Your task to perform on an android device: Look up the best rated hair dryer on Walmart. Image 0: 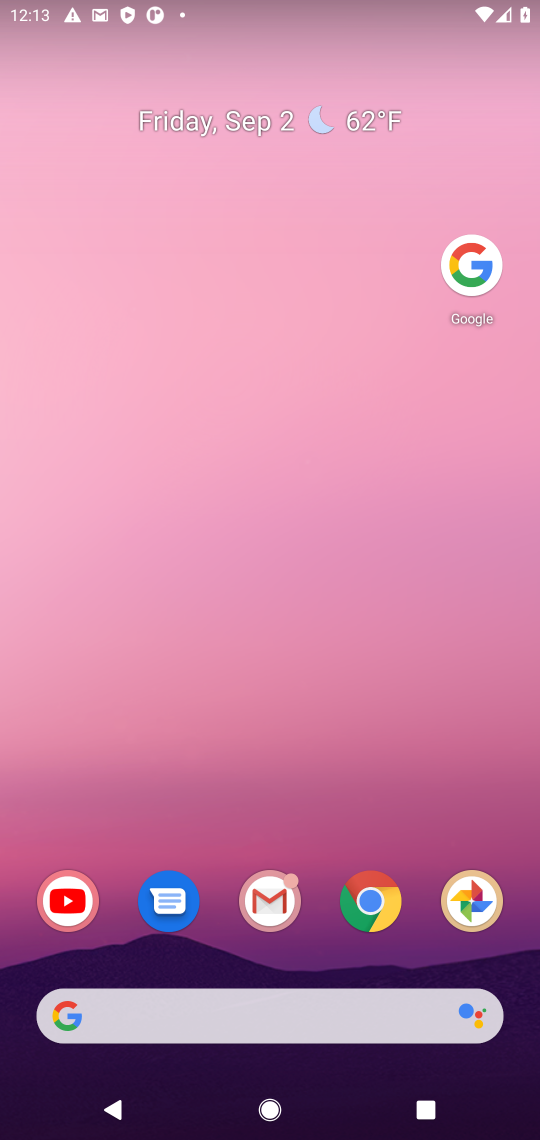
Step 0: drag from (219, 1019) to (250, 398)
Your task to perform on an android device: Look up the best rated hair dryer on Walmart. Image 1: 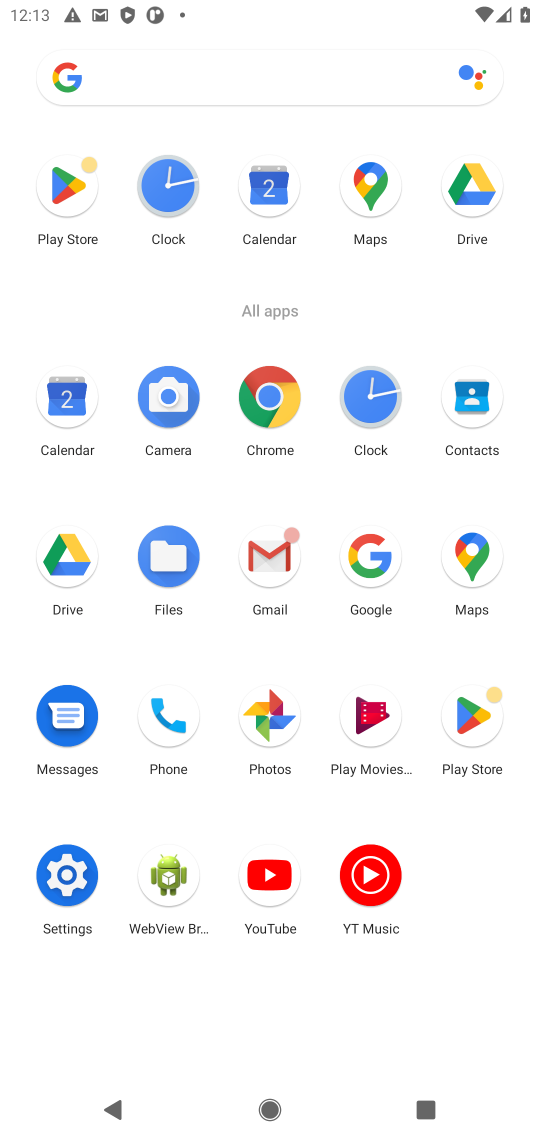
Step 1: click (366, 528)
Your task to perform on an android device: Look up the best rated hair dryer on Walmart. Image 2: 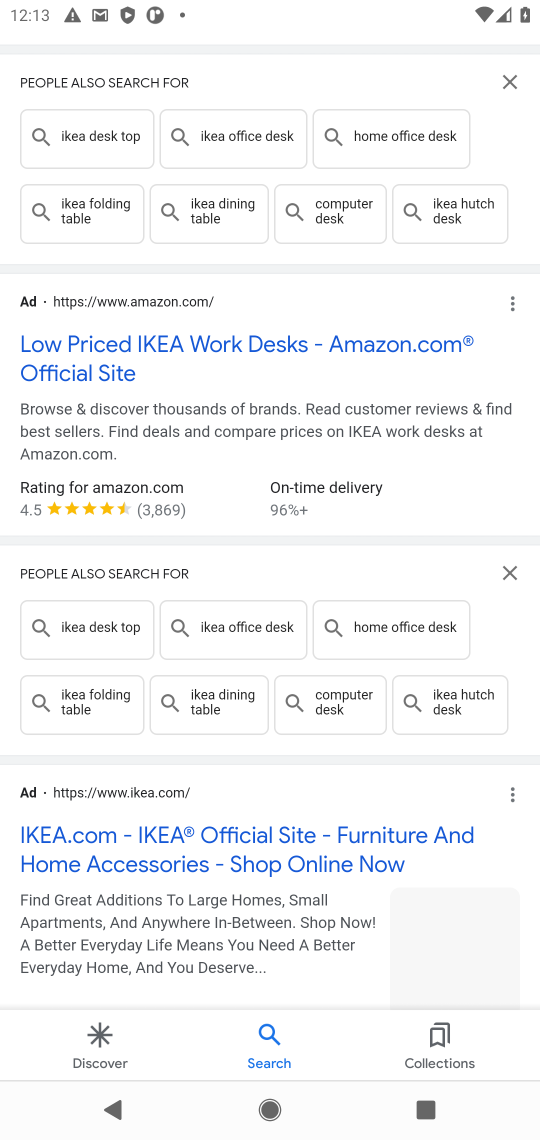
Step 2: drag from (277, 138) to (292, 947)
Your task to perform on an android device: Look up the best rated hair dryer on Walmart. Image 3: 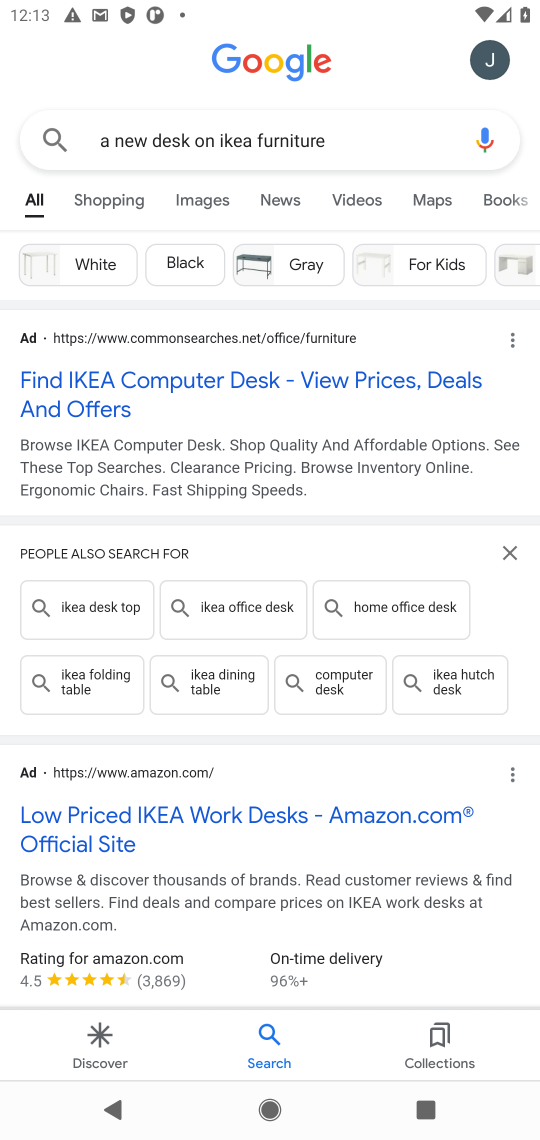
Step 3: click (340, 137)
Your task to perform on an android device: Look up the best rated hair dryer on Walmart. Image 4: 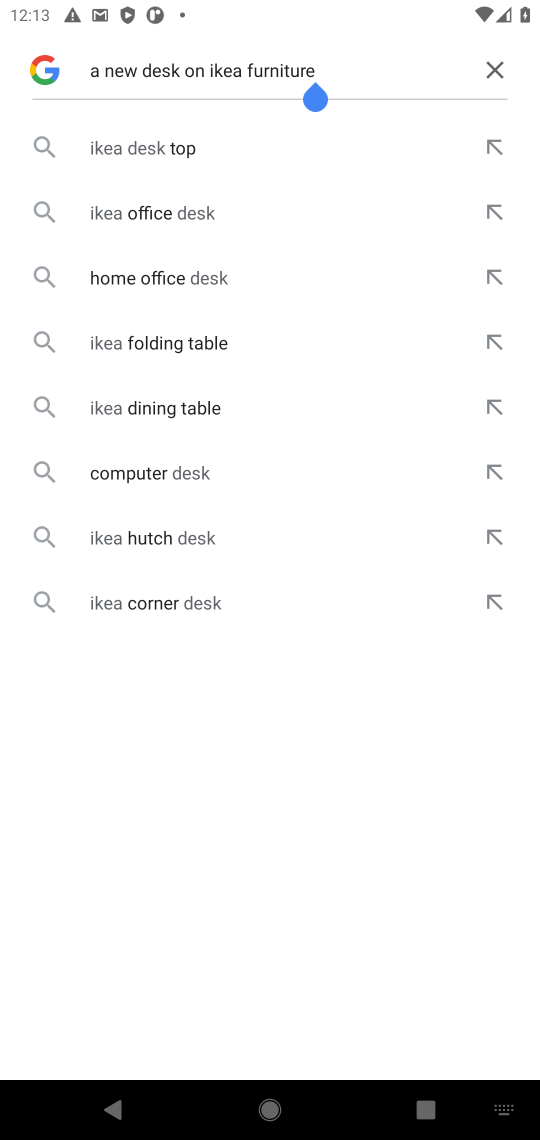
Step 4: click (488, 75)
Your task to perform on an android device: Look up the best rated hair dryer on Walmart. Image 5: 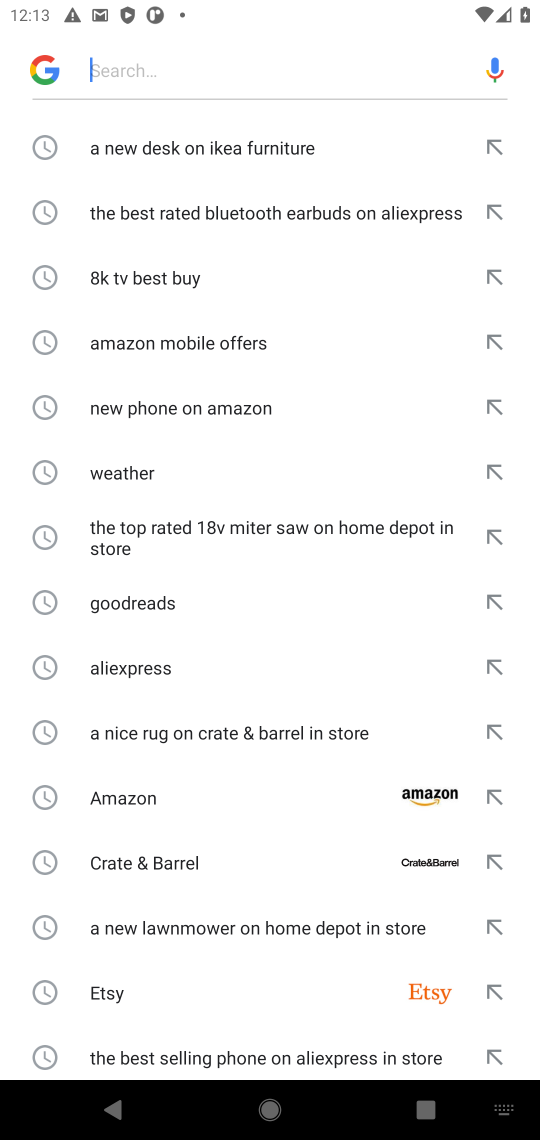
Step 5: click (274, 72)
Your task to perform on an android device: Look up the best rated hair dryer on Walmart. Image 6: 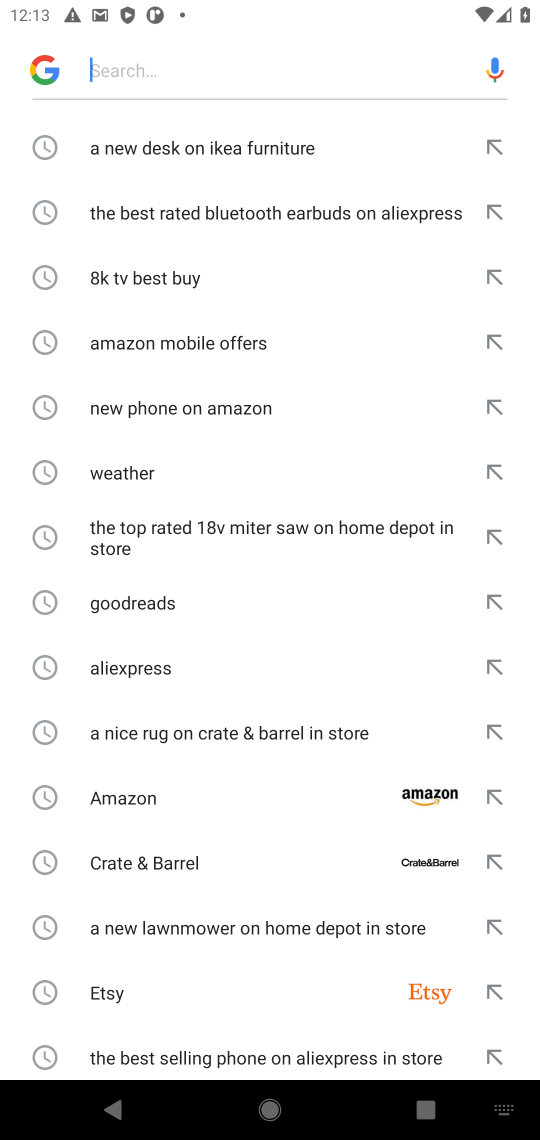
Step 6: type "the best rated hair dryer on Walmart "
Your task to perform on an android device: Look up the best rated hair dryer on Walmart. Image 7: 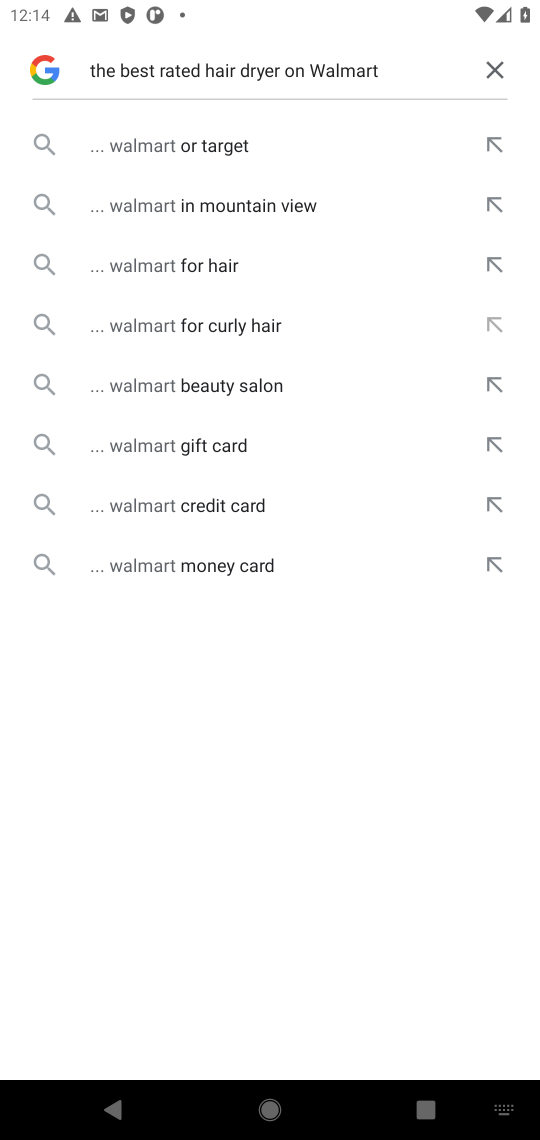
Step 7: click (197, 147)
Your task to perform on an android device: Look up the best rated hair dryer on Walmart. Image 8: 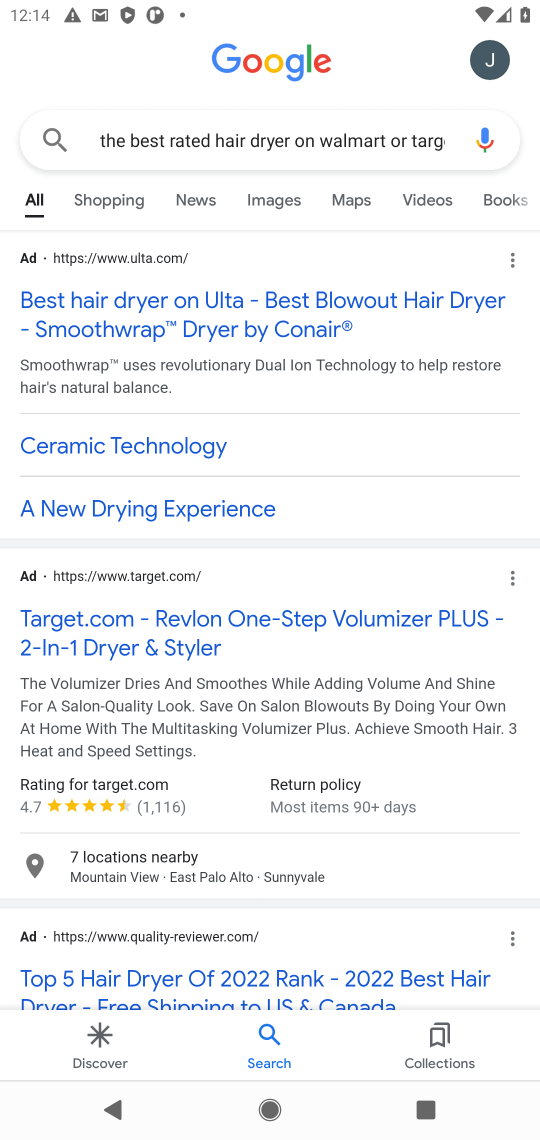
Step 8: click (145, 305)
Your task to perform on an android device: Look up the best rated hair dryer on Walmart. Image 9: 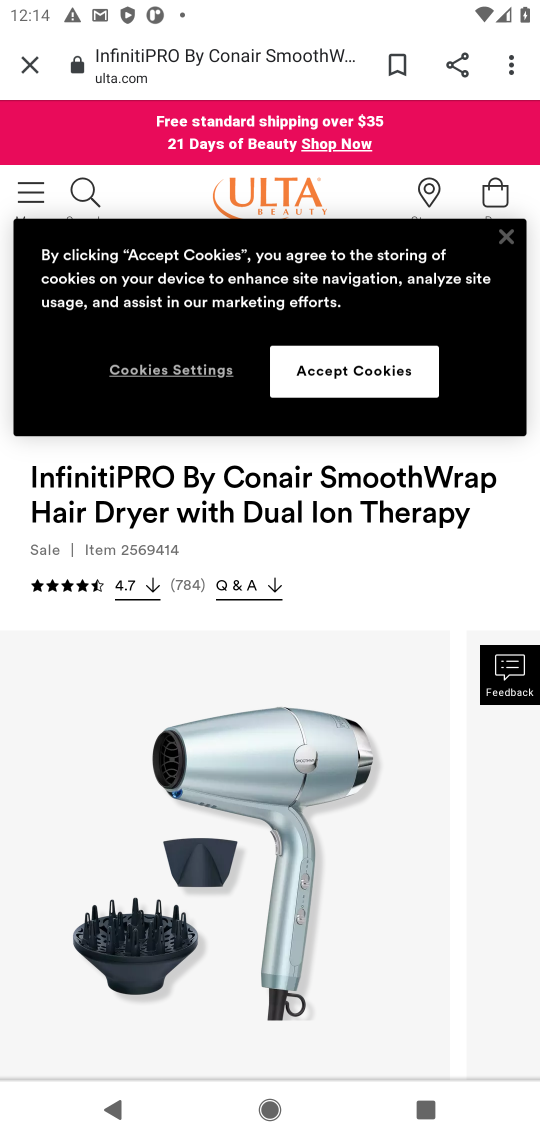
Step 9: drag from (344, 974) to (381, 206)
Your task to perform on an android device: Look up the best rated hair dryer on Walmart. Image 10: 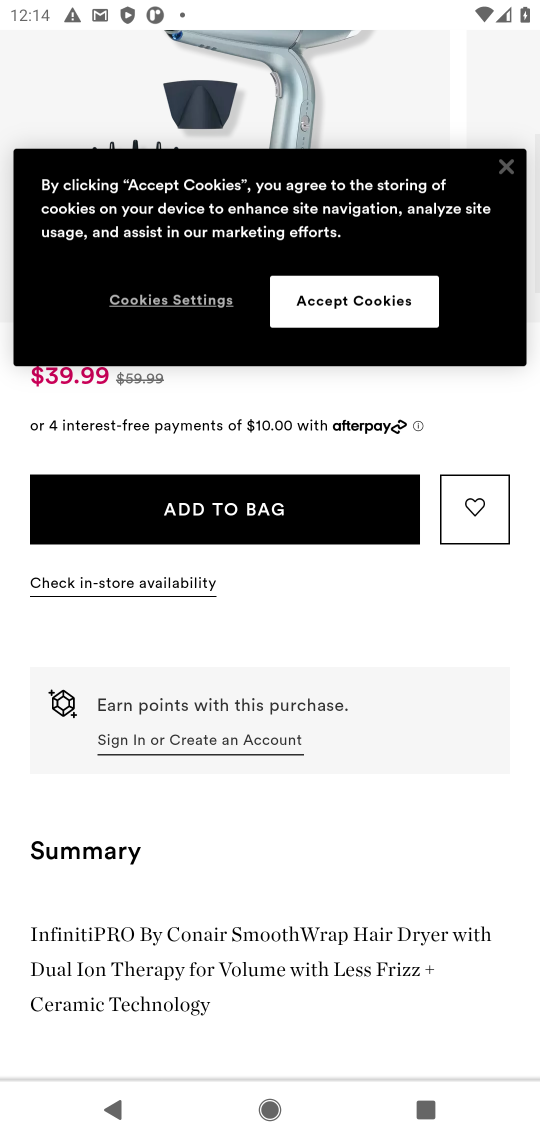
Step 10: drag from (293, 958) to (328, 344)
Your task to perform on an android device: Look up the best rated hair dryer on Walmart. Image 11: 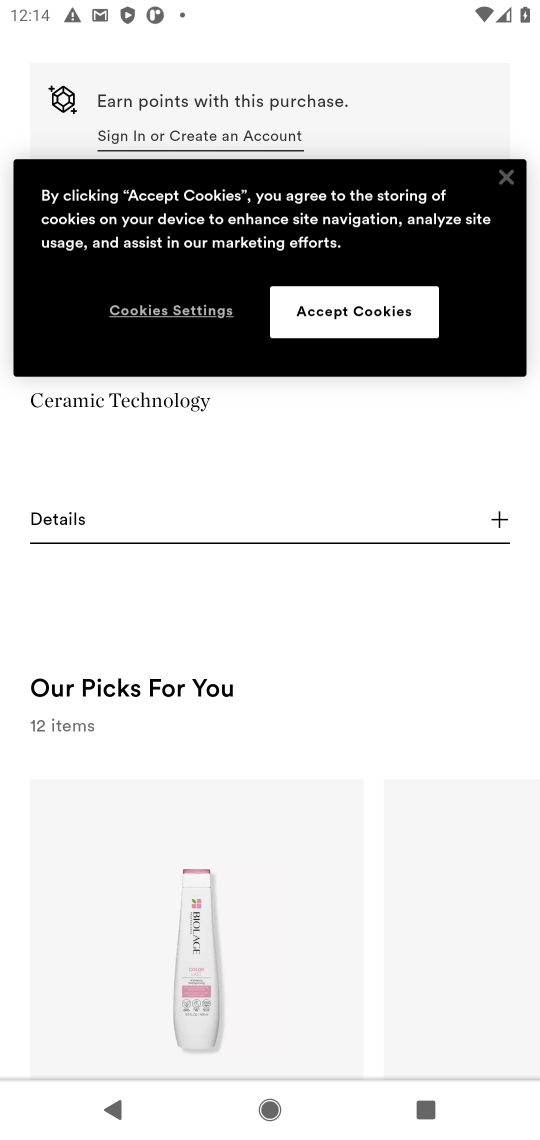
Step 11: click (503, 176)
Your task to perform on an android device: Look up the best rated hair dryer on Walmart. Image 12: 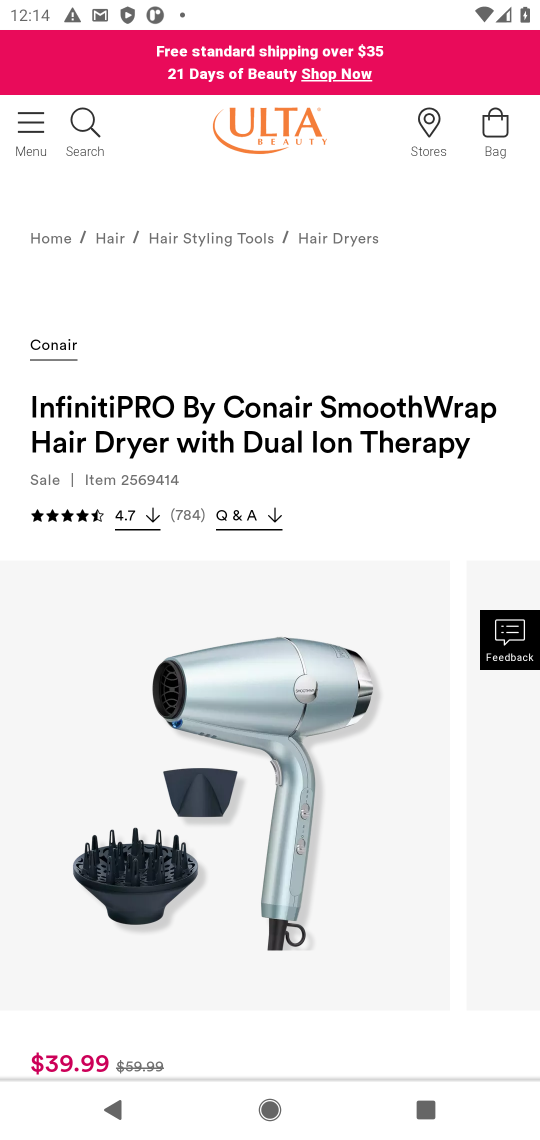
Step 12: task complete